Your task to perform on an android device: turn off notifications in google photos Image 0: 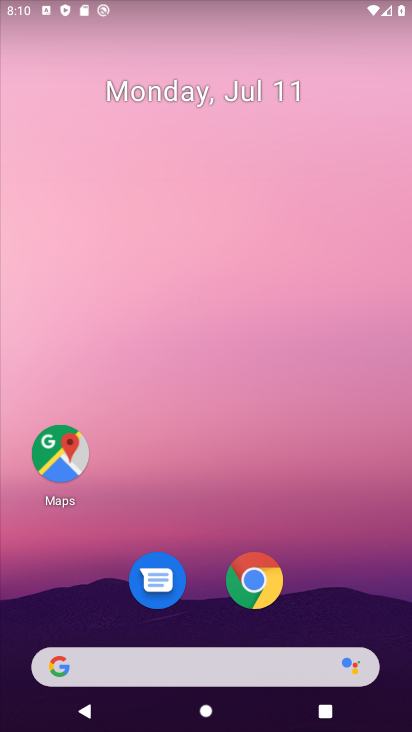
Step 0: drag from (334, 546) to (312, 37)
Your task to perform on an android device: turn off notifications in google photos Image 1: 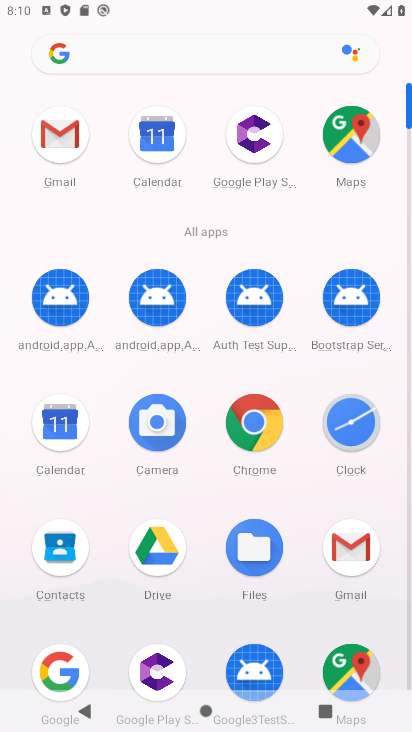
Step 1: drag from (282, 522) to (302, 177)
Your task to perform on an android device: turn off notifications in google photos Image 2: 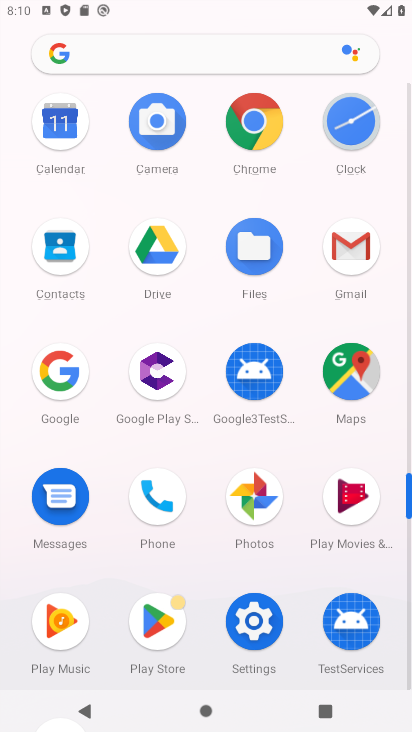
Step 2: click (255, 488)
Your task to perform on an android device: turn off notifications in google photos Image 3: 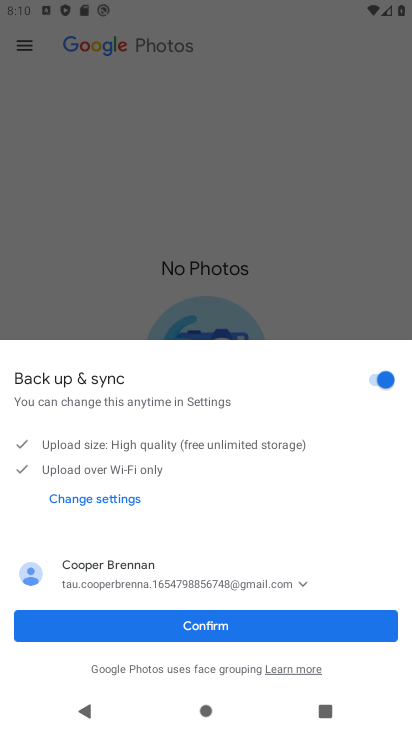
Step 3: click (345, 621)
Your task to perform on an android device: turn off notifications in google photos Image 4: 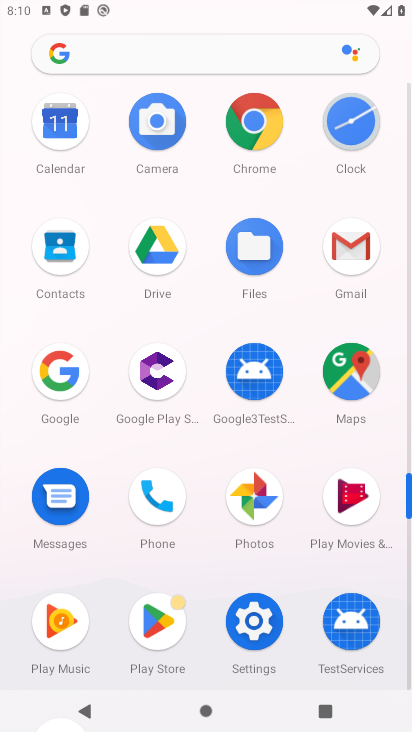
Step 4: click (259, 495)
Your task to perform on an android device: turn off notifications in google photos Image 5: 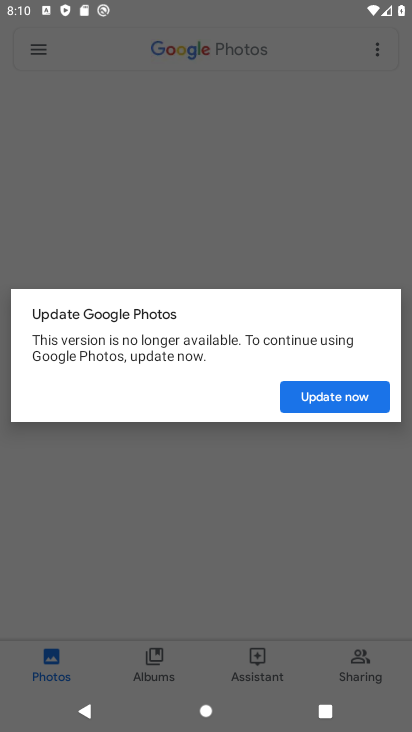
Step 5: click (302, 394)
Your task to perform on an android device: turn off notifications in google photos Image 6: 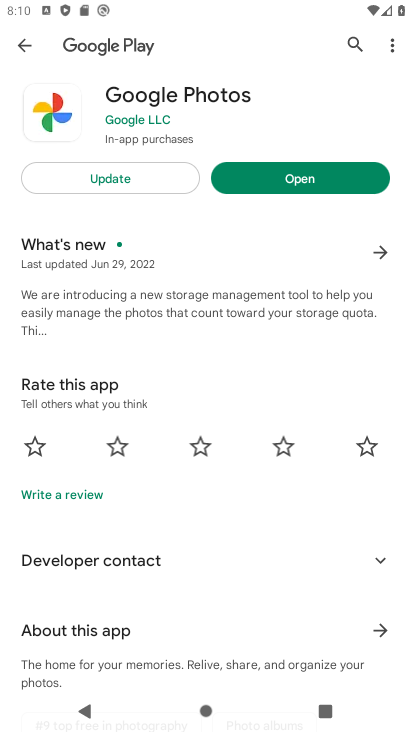
Step 6: click (340, 181)
Your task to perform on an android device: turn off notifications in google photos Image 7: 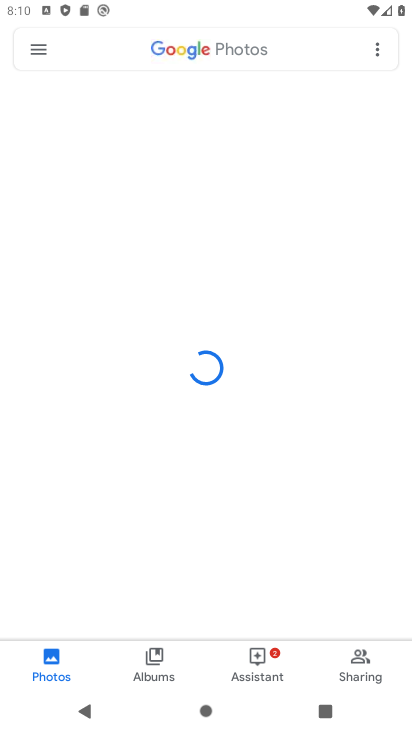
Step 7: click (41, 46)
Your task to perform on an android device: turn off notifications in google photos Image 8: 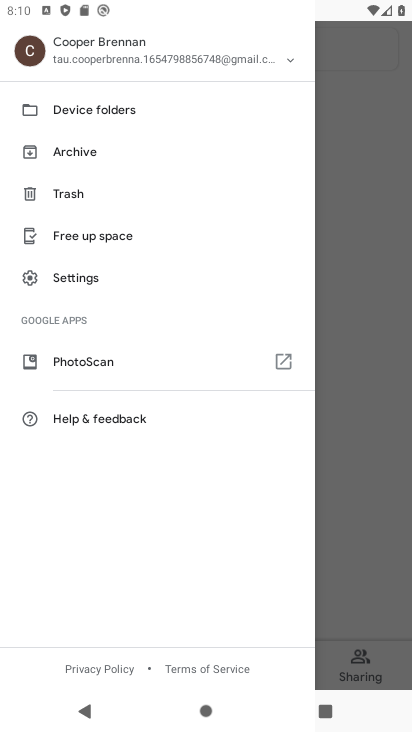
Step 8: click (74, 273)
Your task to perform on an android device: turn off notifications in google photos Image 9: 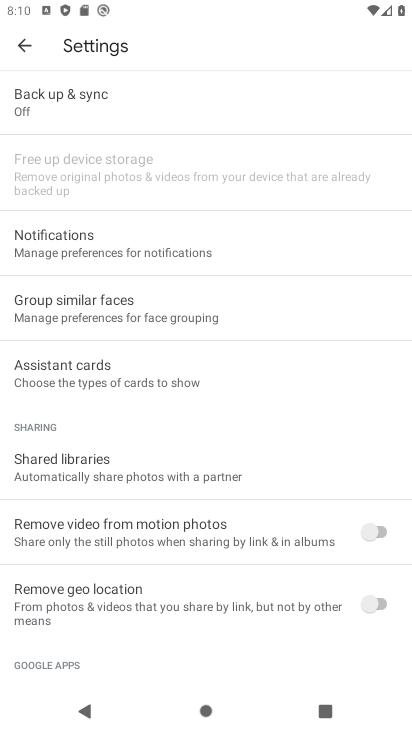
Step 9: click (118, 238)
Your task to perform on an android device: turn off notifications in google photos Image 10: 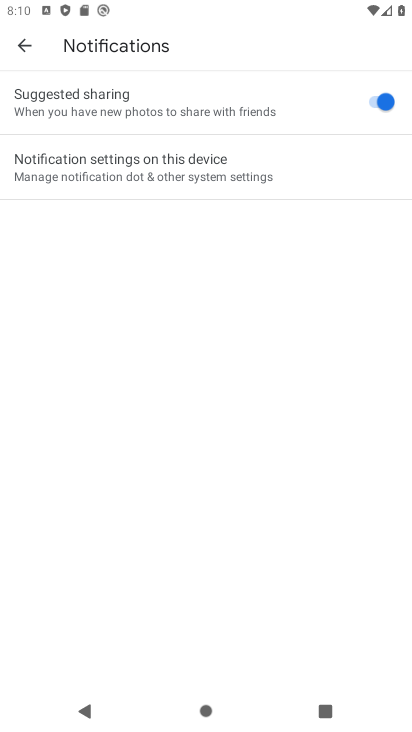
Step 10: click (377, 90)
Your task to perform on an android device: turn off notifications in google photos Image 11: 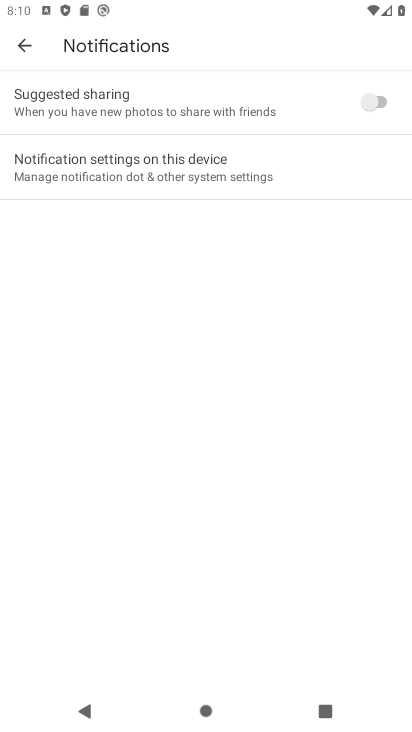
Step 11: task complete